Your task to perform on an android device: open sync settings in chrome Image 0: 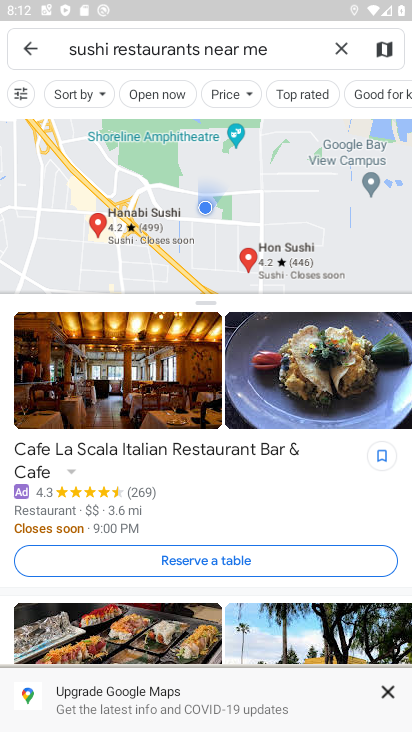
Step 0: press home button
Your task to perform on an android device: open sync settings in chrome Image 1: 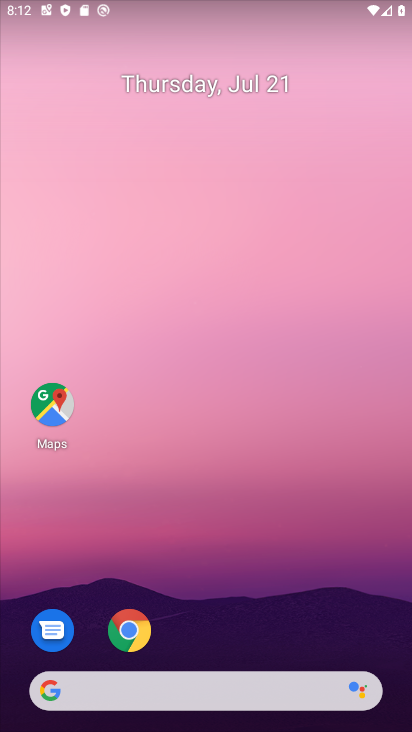
Step 1: click (122, 638)
Your task to perform on an android device: open sync settings in chrome Image 2: 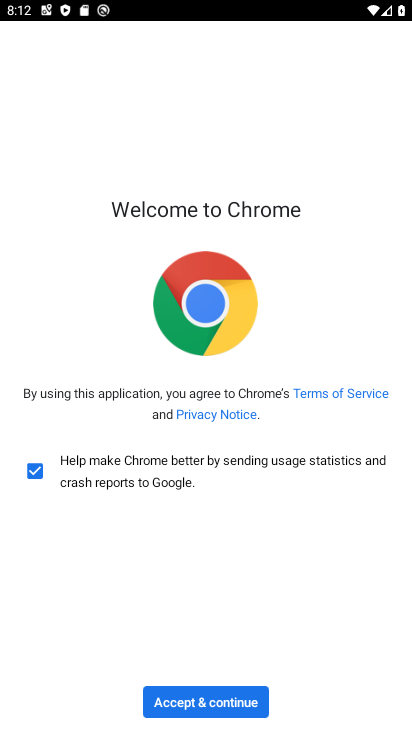
Step 2: click (163, 706)
Your task to perform on an android device: open sync settings in chrome Image 3: 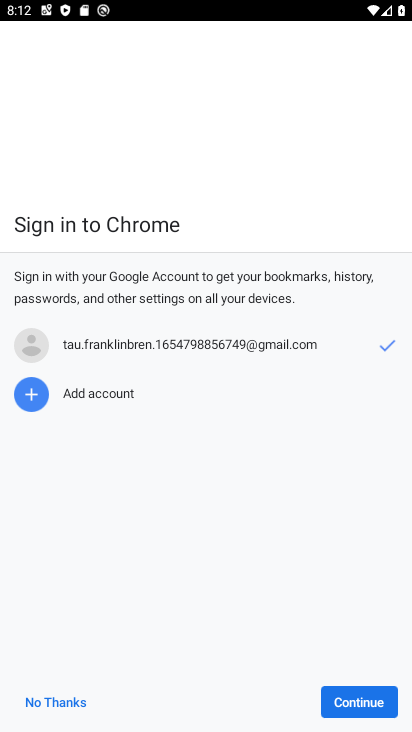
Step 3: click (163, 706)
Your task to perform on an android device: open sync settings in chrome Image 4: 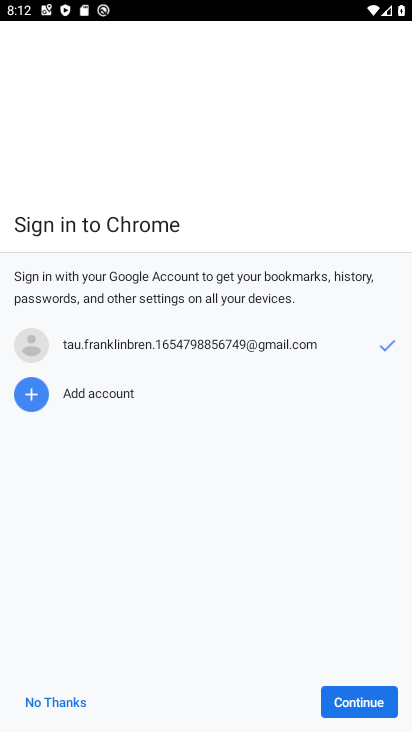
Step 4: click (346, 712)
Your task to perform on an android device: open sync settings in chrome Image 5: 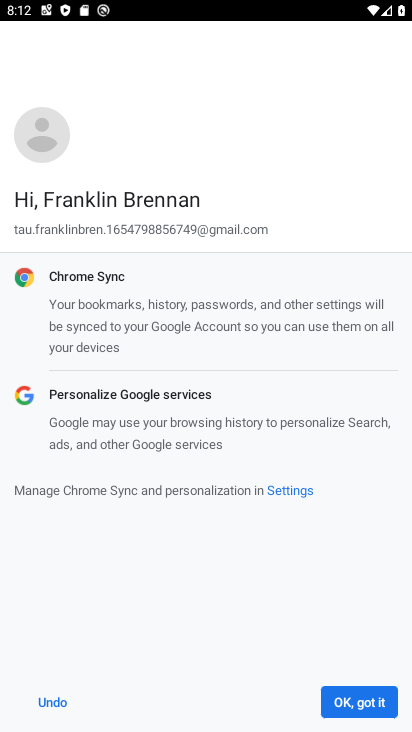
Step 5: click (346, 712)
Your task to perform on an android device: open sync settings in chrome Image 6: 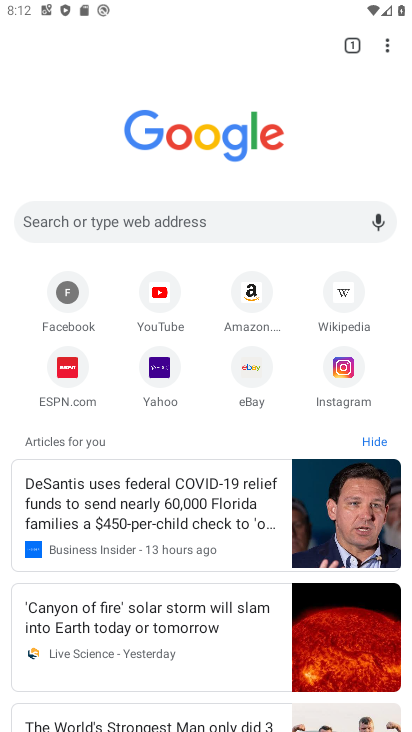
Step 6: click (393, 41)
Your task to perform on an android device: open sync settings in chrome Image 7: 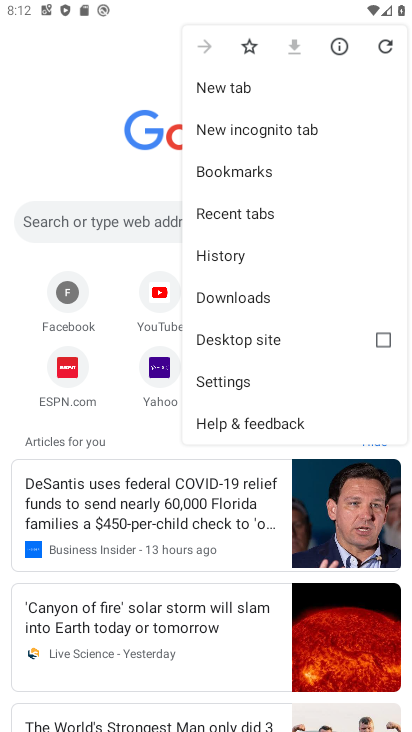
Step 7: click (250, 384)
Your task to perform on an android device: open sync settings in chrome Image 8: 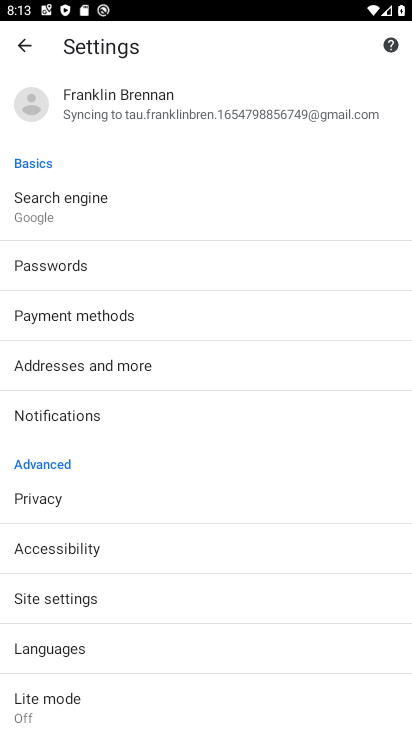
Step 8: click (162, 126)
Your task to perform on an android device: open sync settings in chrome Image 9: 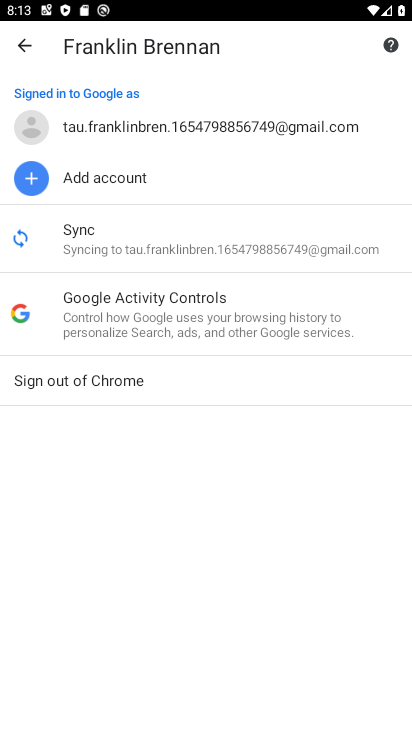
Step 9: click (130, 226)
Your task to perform on an android device: open sync settings in chrome Image 10: 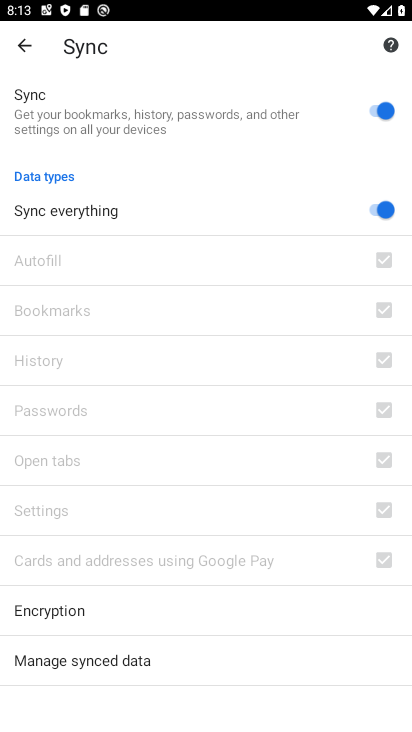
Step 10: task complete